Your task to perform on an android device: Open Google Chrome and click the shortcut for Amazon.com Image 0: 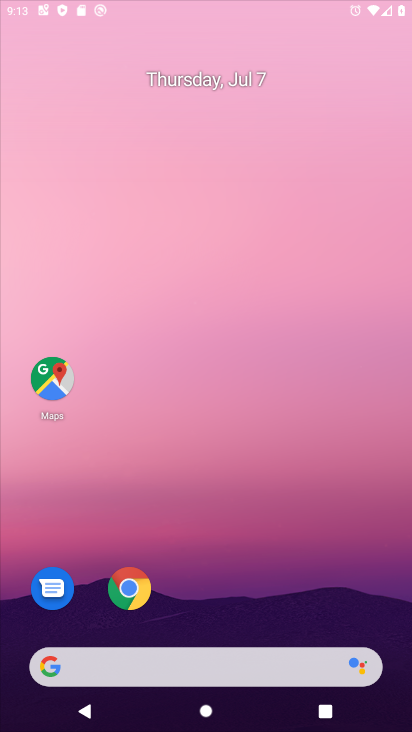
Step 0: press home button
Your task to perform on an android device: Open Google Chrome and click the shortcut for Amazon.com Image 1: 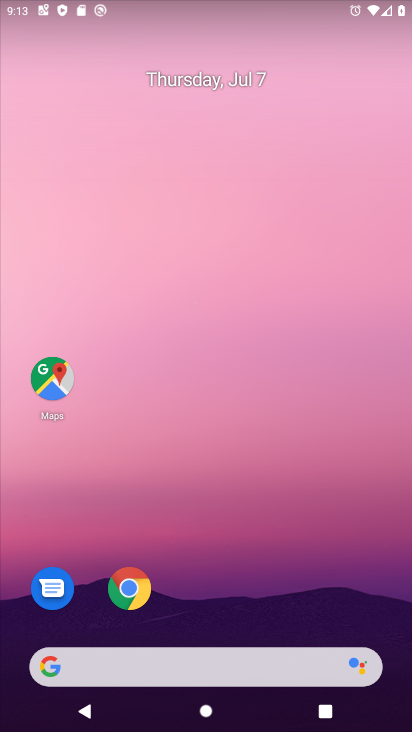
Step 1: drag from (224, 625) to (227, 66)
Your task to perform on an android device: Open Google Chrome and click the shortcut for Amazon.com Image 2: 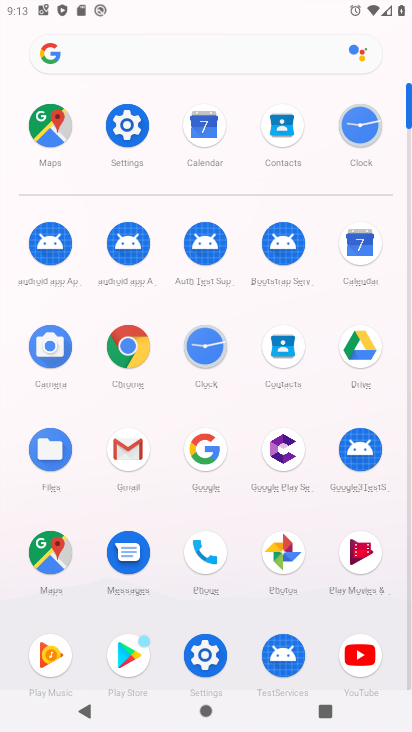
Step 2: click (125, 341)
Your task to perform on an android device: Open Google Chrome and click the shortcut for Amazon.com Image 3: 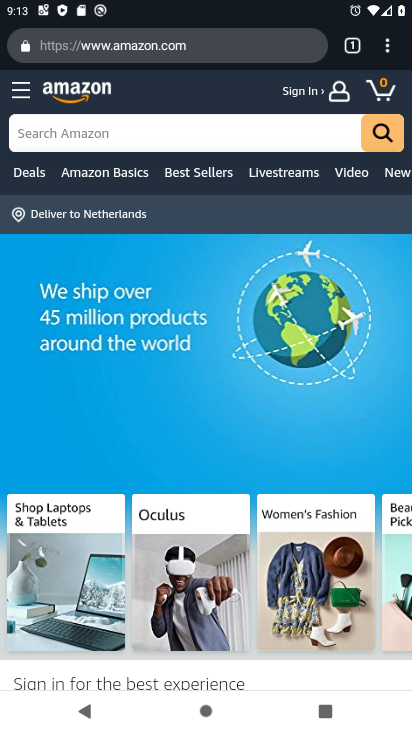
Step 3: click (350, 42)
Your task to perform on an android device: Open Google Chrome and click the shortcut for Amazon.com Image 4: 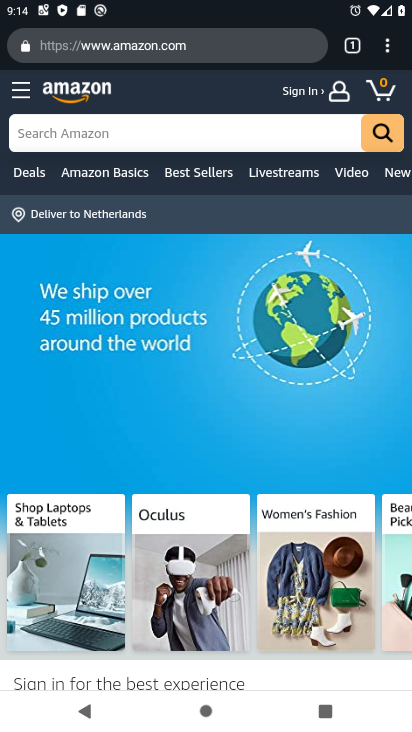
Step 4: click (351, 42)
Your task to perform on an android device: Open Google Chrome and click the shortcut for Amazon.com Image 5: 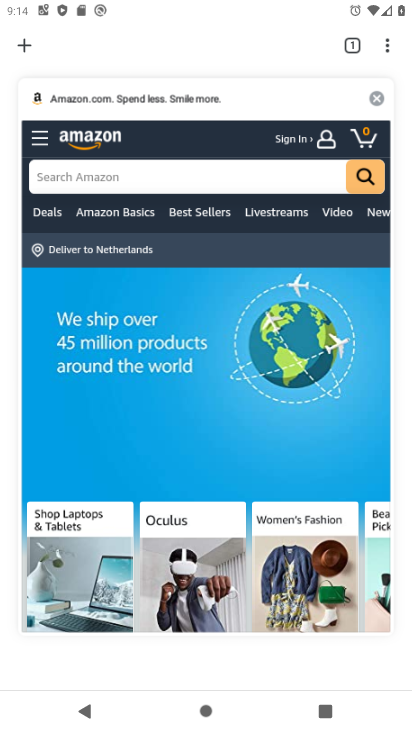
Step 5: click (216, 310)
Your task to perform on an android device: Open Google Chrome and click the shortcut for Amazon.com Image 6: 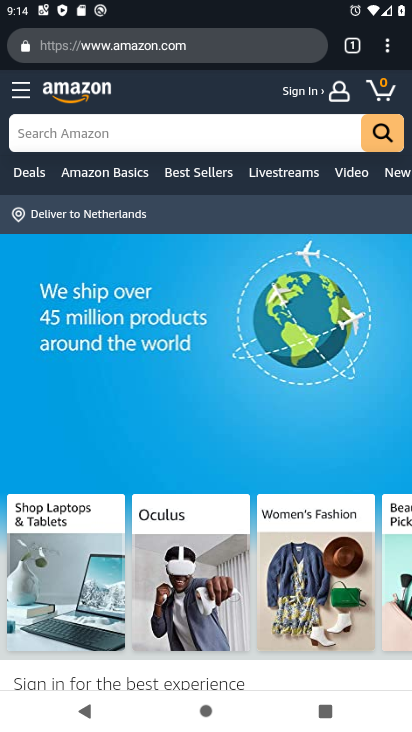
Step 6: task complete